Your task to perform on an android device: set the timer Image 0: 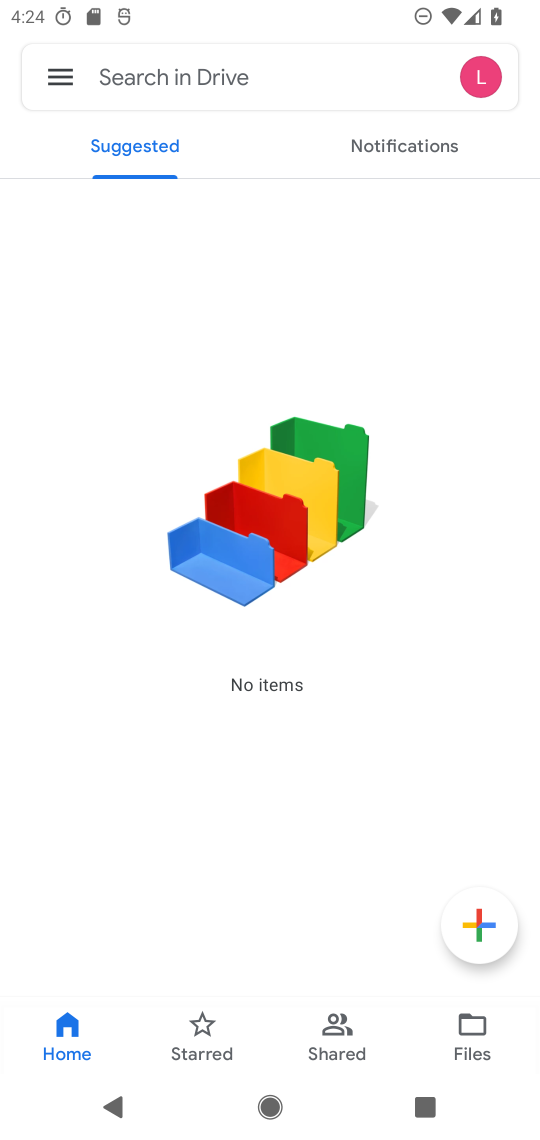
Step 0: press home button
Your task to perform on an android device: set the timer Image 1: 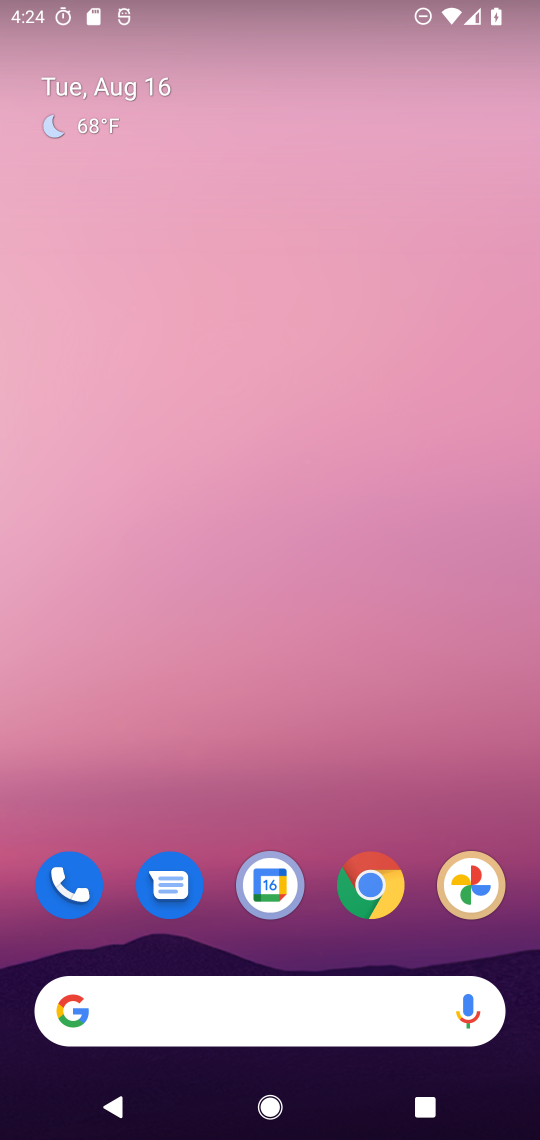
Step 1: drag from (257, 955) to (264, 167)
Your task to perform on an android device: set the timer Image 2: 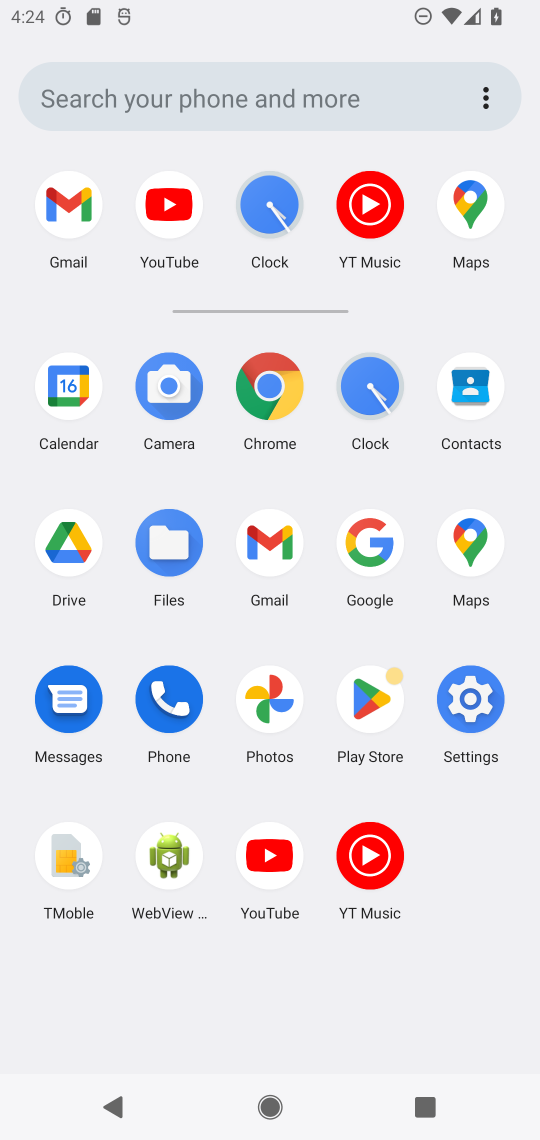
Step 2: click (380, 374)
Your task to perform on an android device: set the timer Image 3: 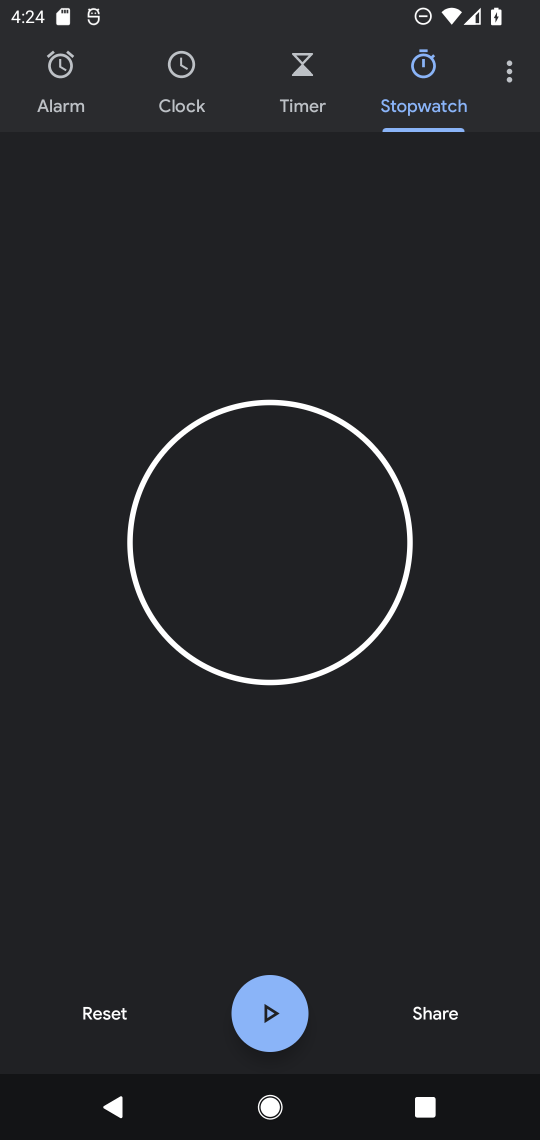
Step 3: click (316, 80)
Your task to perform on an android device: set the timer Image 4: 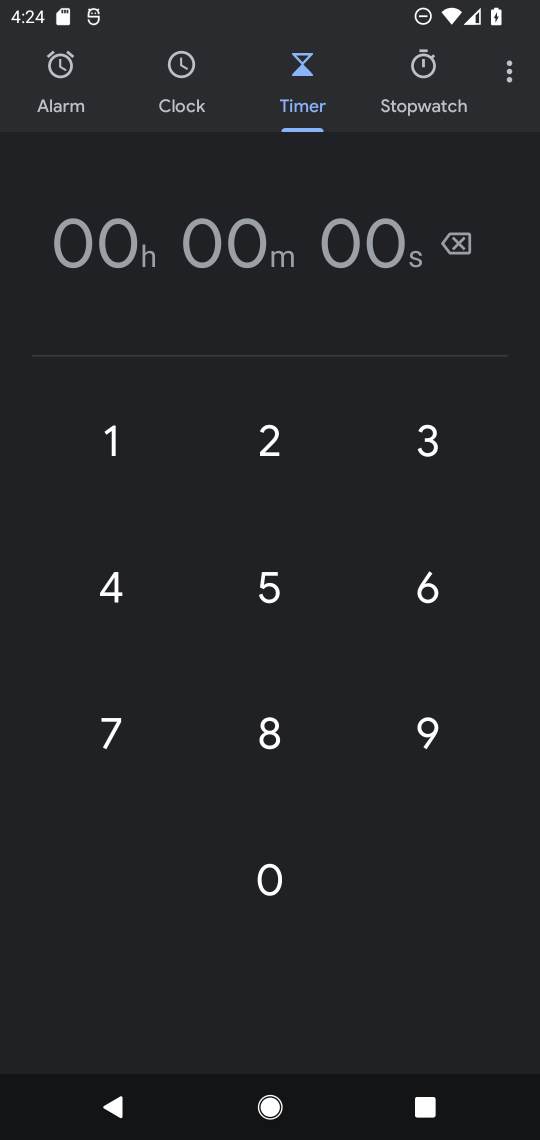
Step 4: click (231, 251)
Your task to perform on an android device: set the timer Image 5: 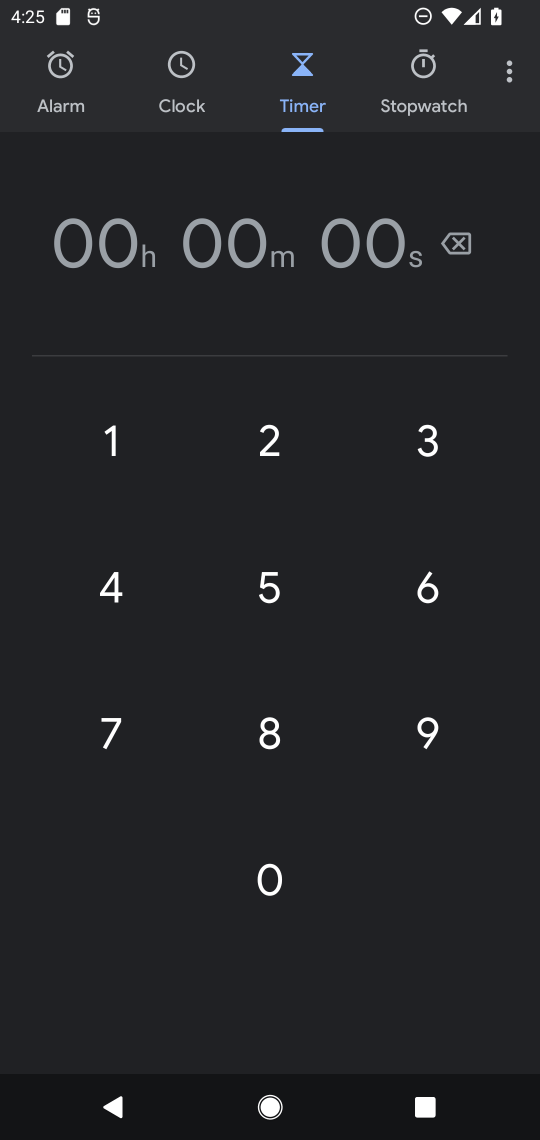
Step 5: type "91919119 "
Your task to perform on an android device: set the timer Image 6: 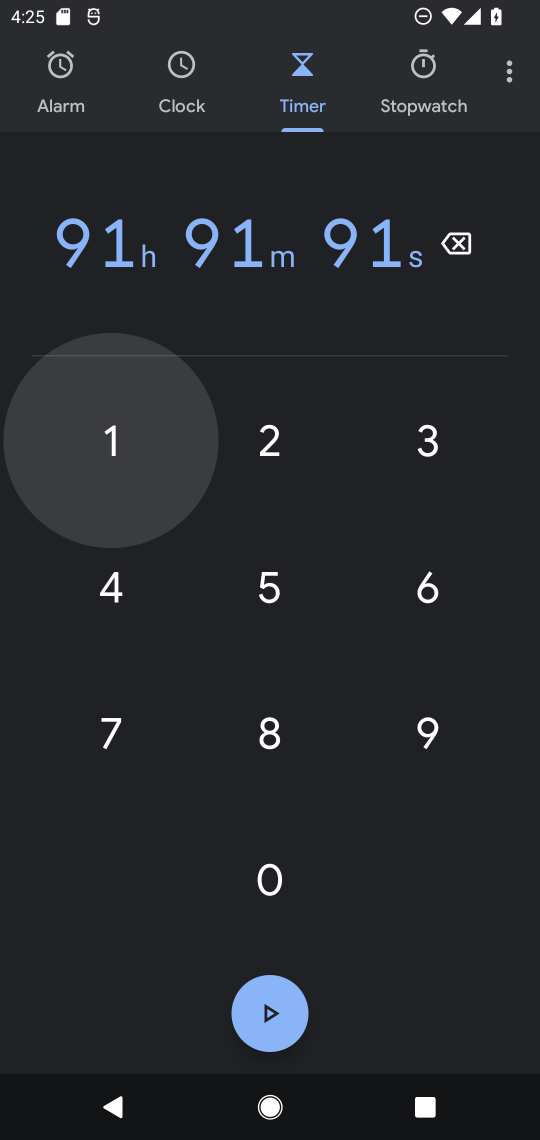
Step 6: task complete